Your task to perform on an android device: Open Android settings Image 0: 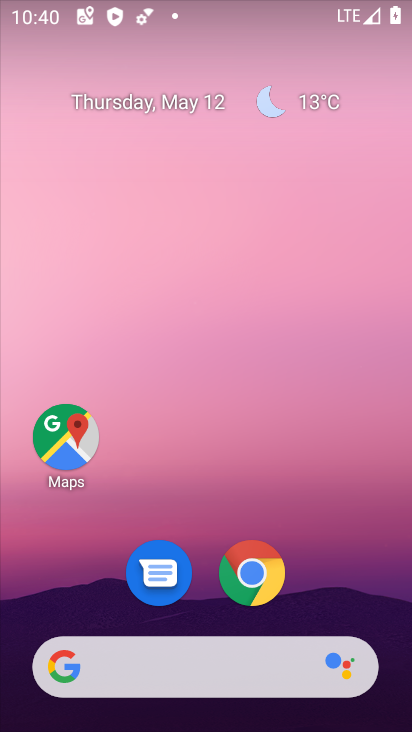
Step 0: drag from (205, 624) to (111, 15)
Your task to perform on an android device: Open Android settings Image 1: 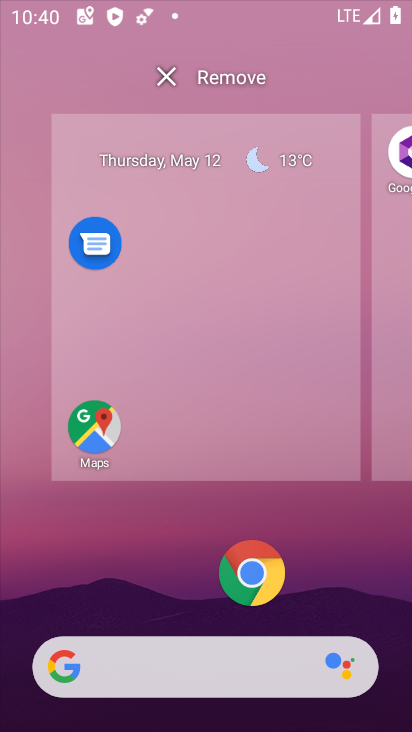
Step 1: drag from (160, 619) to (140, 0)
Your task to perform on an android device: Open Android settings Image 2: 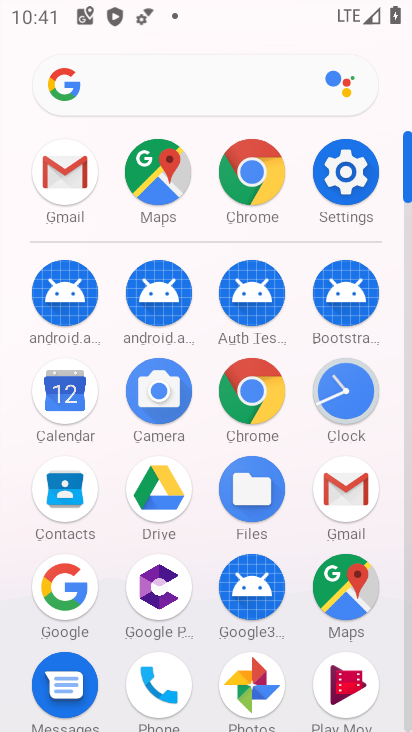
Step 2: click (335, 175)
Your task to perform on an android device: Open Android settings Image 3: 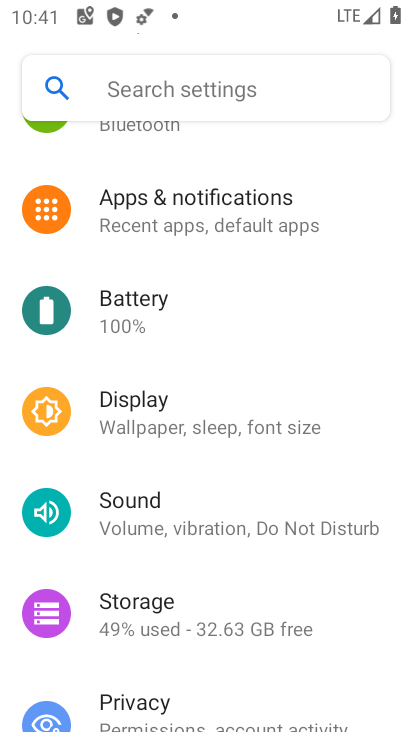
Step 3: task complete